Your task to perform on an android device: Show me the alarms in the clock app Image 0: 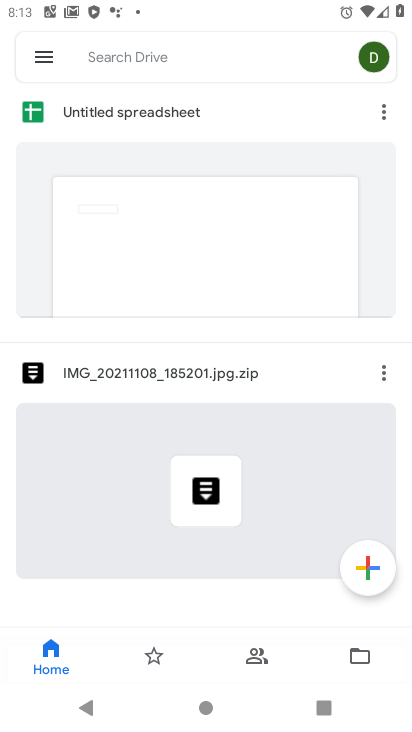
Step 0: press home button
Your task to perform on an android device: Show me the alarms in the clock app Image 1: 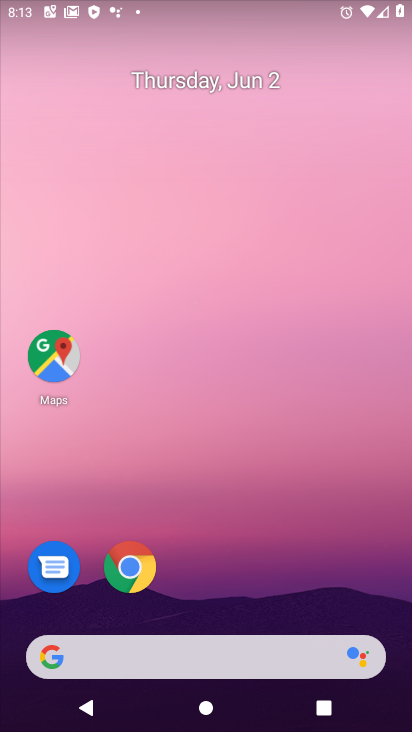
Step 1: drag from (287, 531) to (230, 77)
Your task to perform on an android device: Show me the alarms in the clock app Image 2: 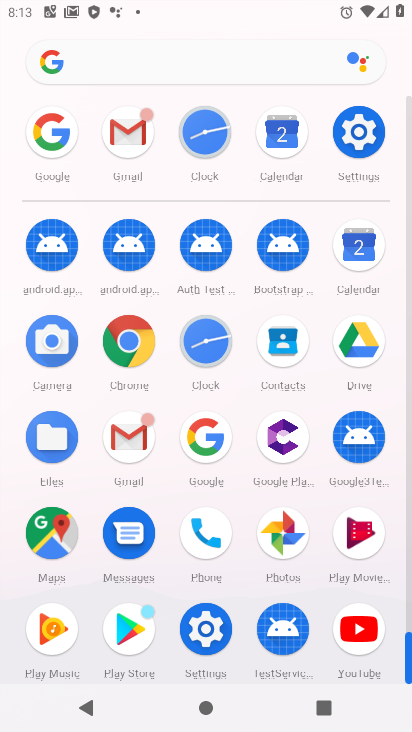
Step 2: click (205, 133)
Your task to perform on an android device: Show me the alarms in the clock app Image 3: 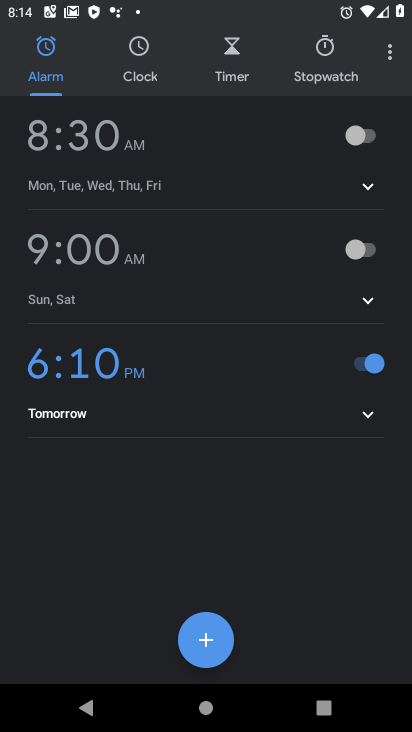
Step 3: task complete